Your task to perform on an android device: clear all cookies in the chrome app Image 0: 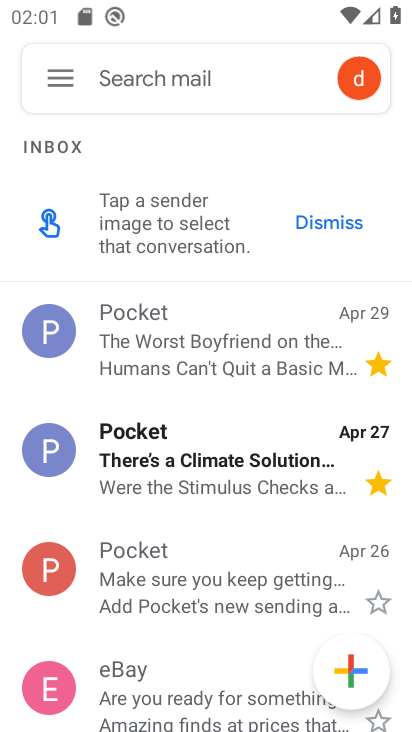
Step 0: press home button
Your task to perform on an android device: clear all cookies in the chrome app Image 1: 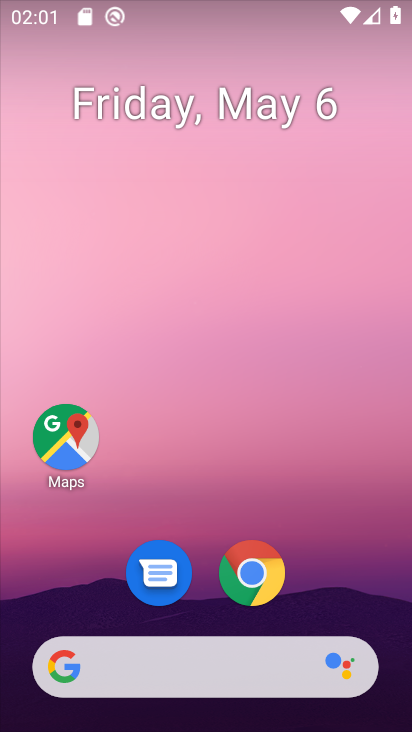
Step 1: drag from (331, 609) to (333, 209)
Your task to perform on an android device: clear all cookies in the chrome app Image 2: 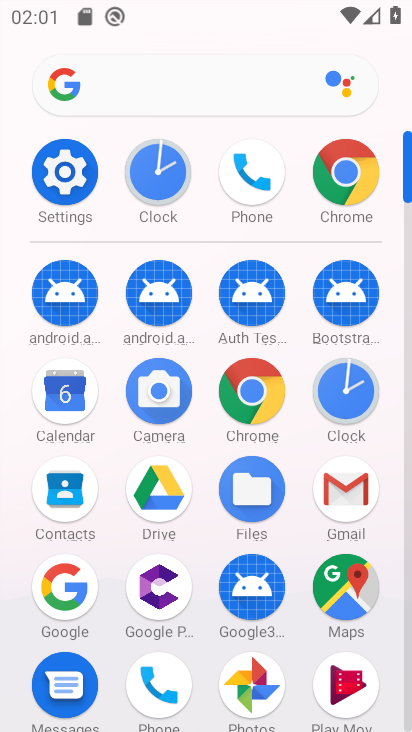
Step 2: click (237, 380)
Your task to perform on an android device: clear all cookies in the chrome app Image 3: 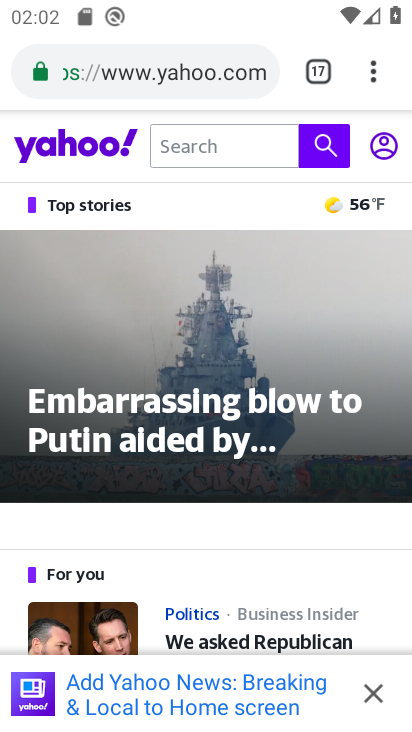
Step 3: click (357, 68)
Your task to perform on an android device: clear all cookies in the chrome app Image 4: 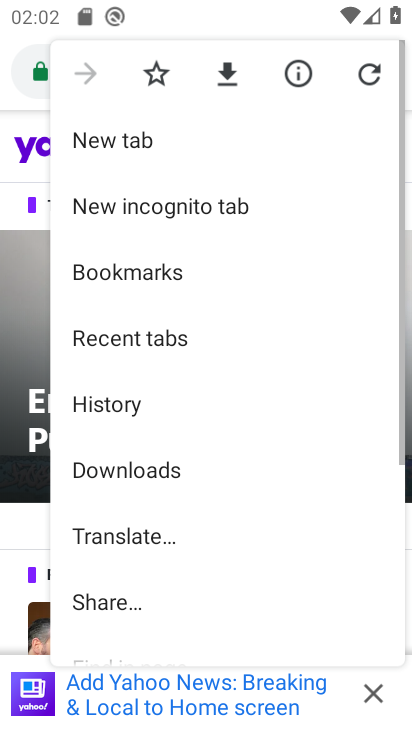
Step 4: drag from (163, 601) to (226, 167)
Your task to perform on an android device: clear all cookies in the chrome app Image 5: 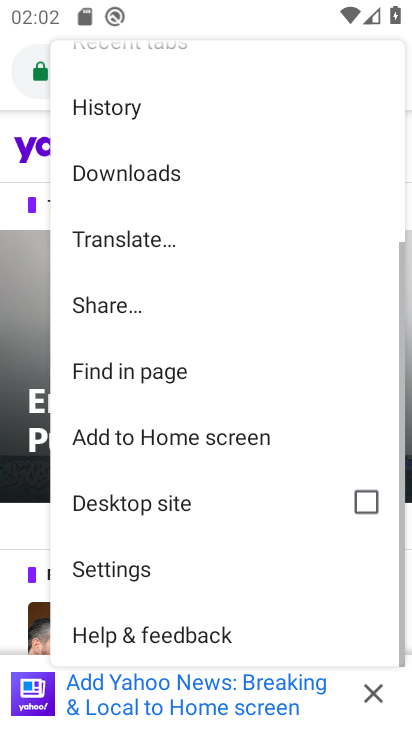
Step 5: click (122, 578)
Your task to perform on an android device: clear all cookies in the chrome app Image 6: 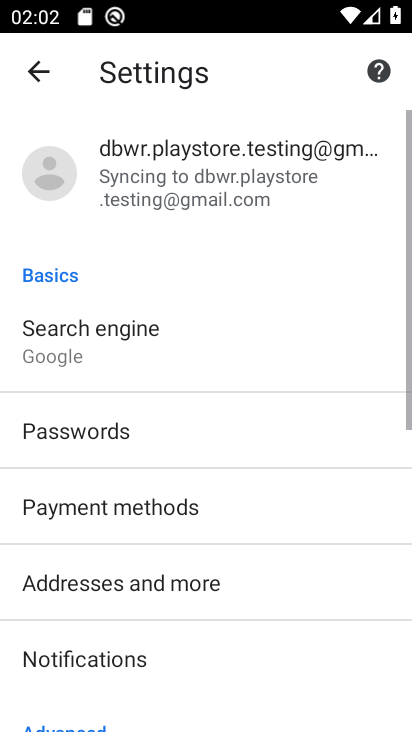
Step 6: drag from (154, 606) to (232, 193)
Your task to perform on an android device: clear all cookies in the chrome app Image 7: 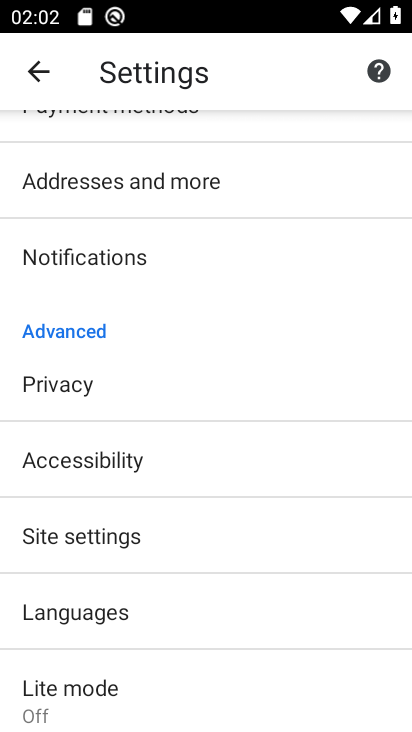
Step 7: click (97, 388)
Your task to perform on an android device: clear all cookies in the chrome app Image 8: 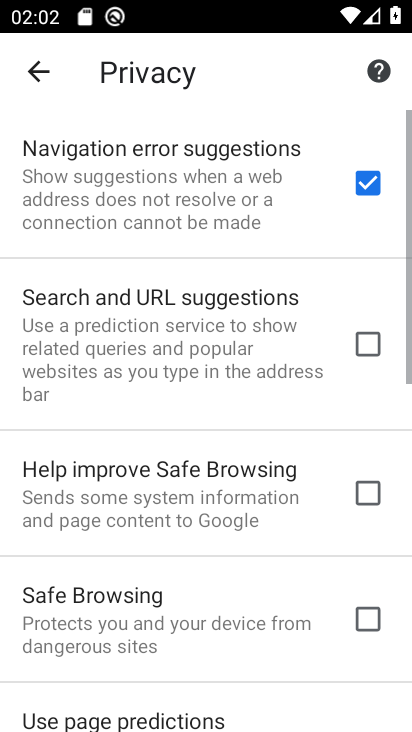
Step 8: drag from (152, 633) to (255, 131)
Your task to perform on an android device: clear all cookies in the chrome app Image 9: 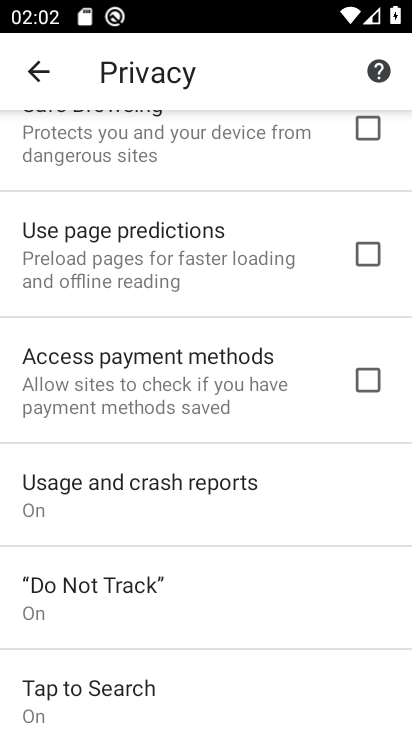
Step 9: drag from (151, 617) to (203, 180)
Your task to perform on an android device: clear all cookies in the chrome app Image 10: 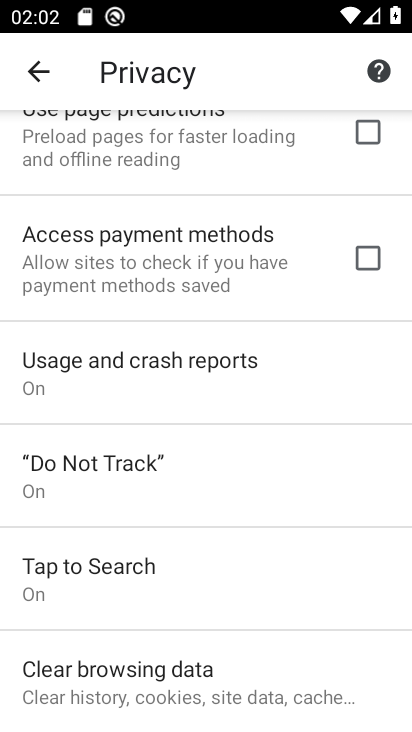
Step 10: click (177, 695)
Your task to perform on an android device: clear all cookies in the chrome app Image 11: 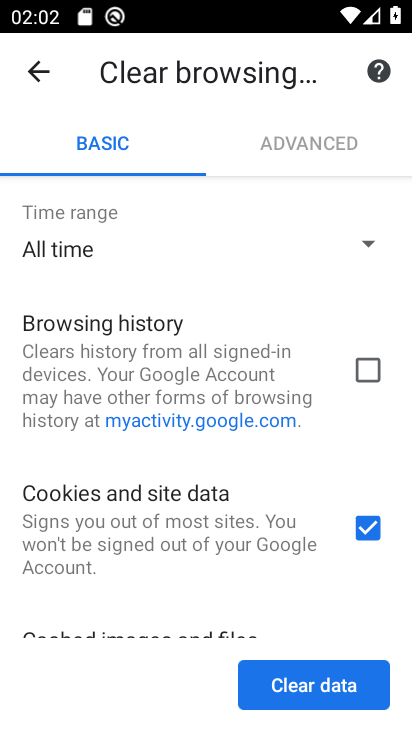
Step 11: drag from (223, 569) to (268, 300)
Your task to perform on an android device: clear all cookies in the chrome app Image 12: 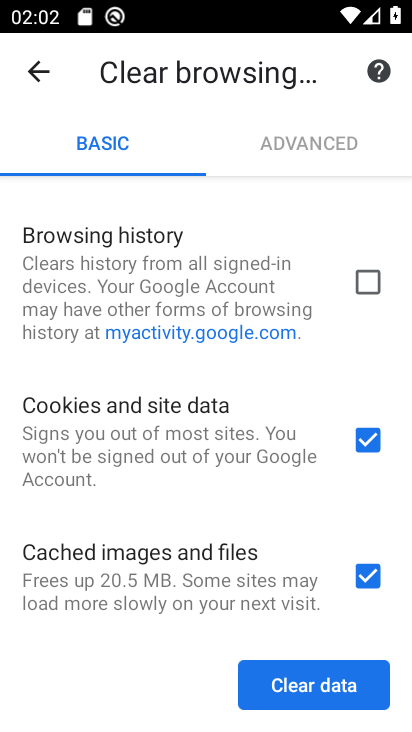
Step 12: click (368, 294)
Your task to perform on an android device: clear all cookies in the chrome app Image 13: 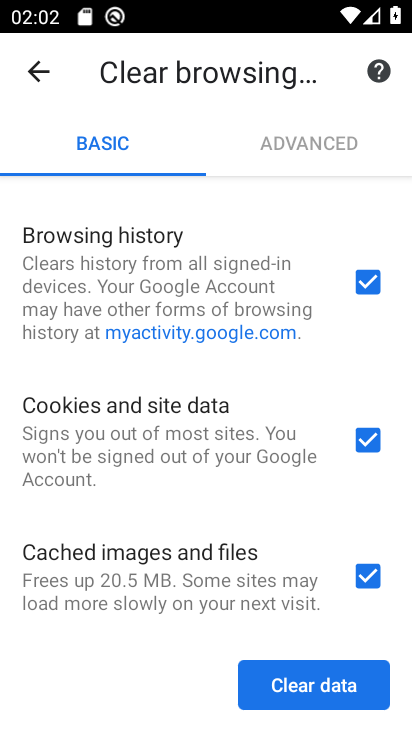
Step 13: task complete